Your task to perform on an android device: Open Chrome and go to settings Image 0: 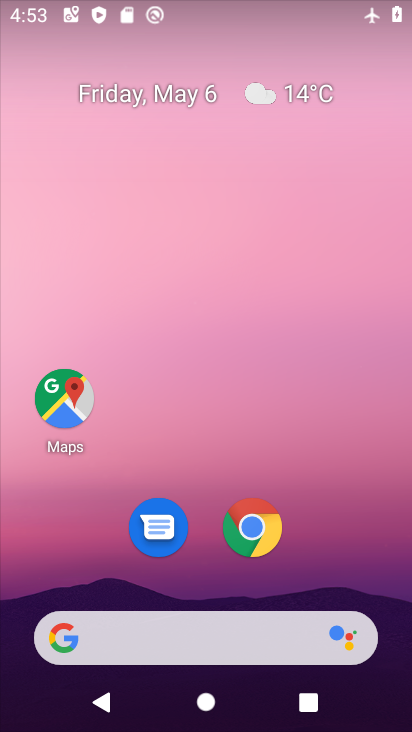
Step 0: click (250, 539)
Your task to perform on an android device: Open Chrome and go to settings Image 1: 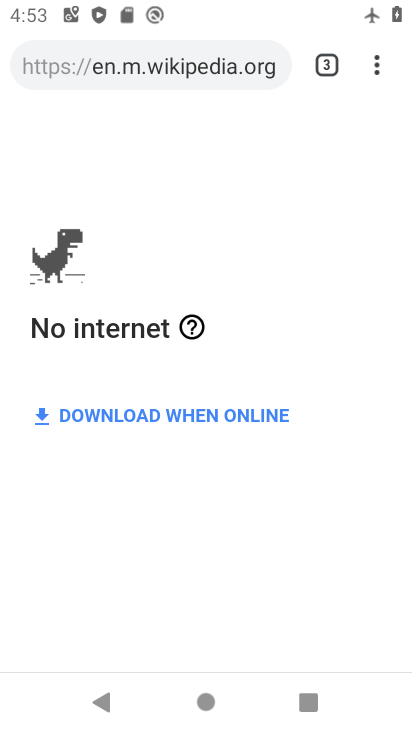
Step 1: task complete